Your task to perform on an android device: turn on location history Image 0: 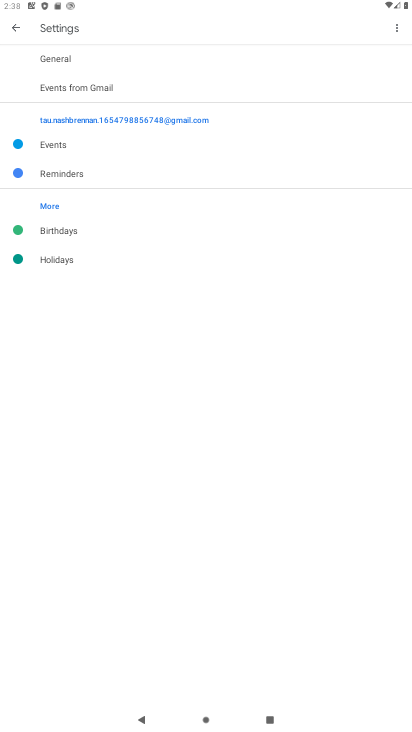
Step 0: press home button
Your task to perform on an android device: turn on location history Image 1: 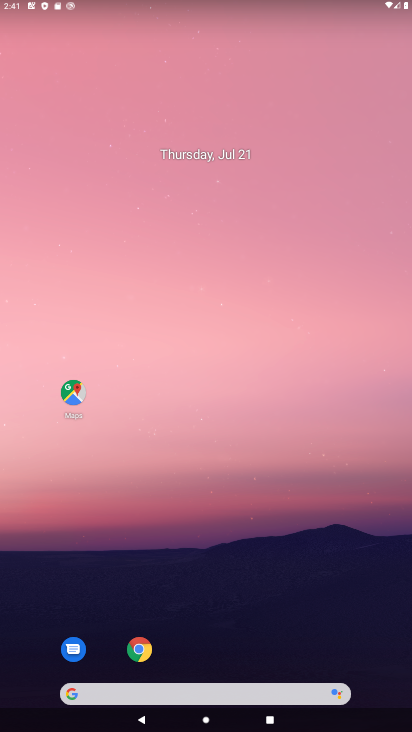
Step 1: drag from (245, 666) to (213, 67)
Your task to perform on an android device: turn on location history Image 2: 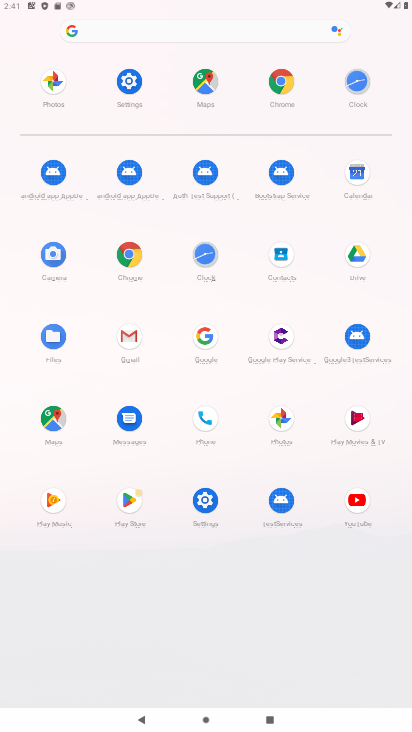
Step 2: click (131, 74)
Your task to perform on an android device: turn on location history Image 3: 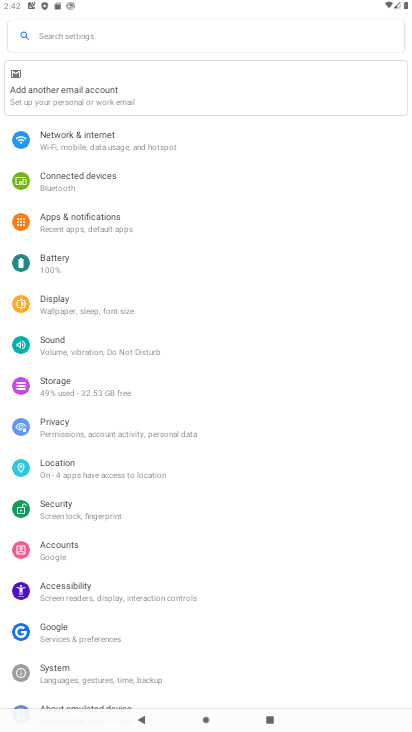
Step 3: click (104, 470)
Your task to perform on an android device: turn on location history Image 4: 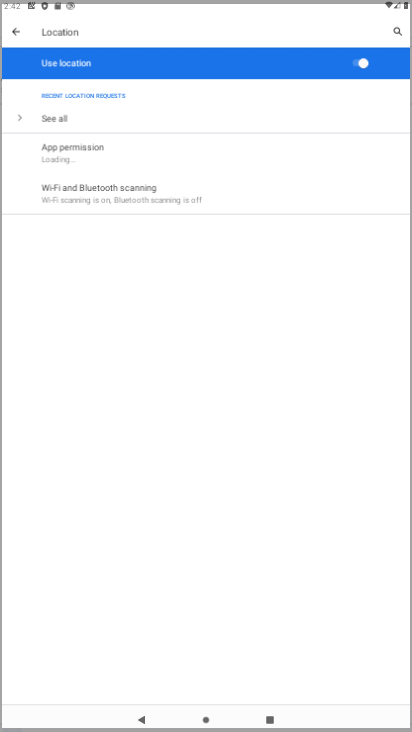
Step 4: task complete